Your task to perform on an android device: turn off data saver in the chrome app Image 0: 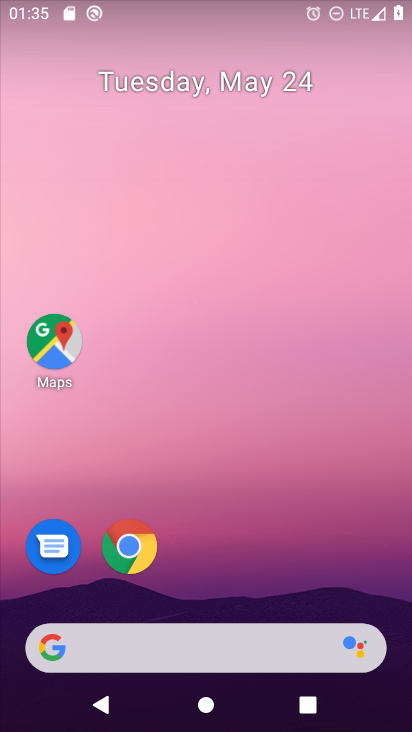
Step 0: drag from (308, 577) to (307, 66)
Your task to perform on an android device: turn off data saver in the chrome app Image 1: 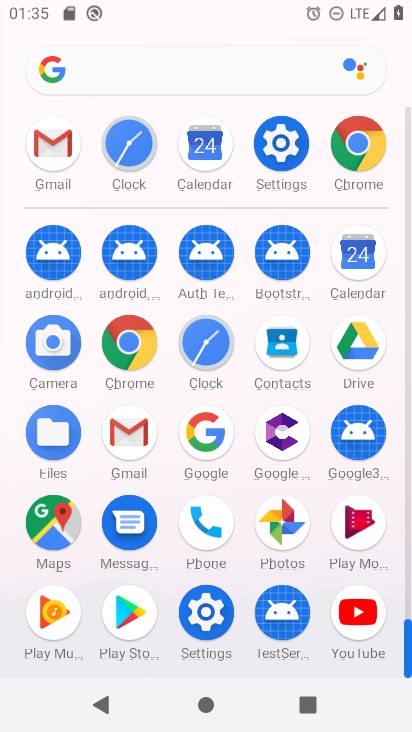
Step 1: click (128, 369)
Your task to perform on an android device: turn off data saver in the chrome app Image 2: 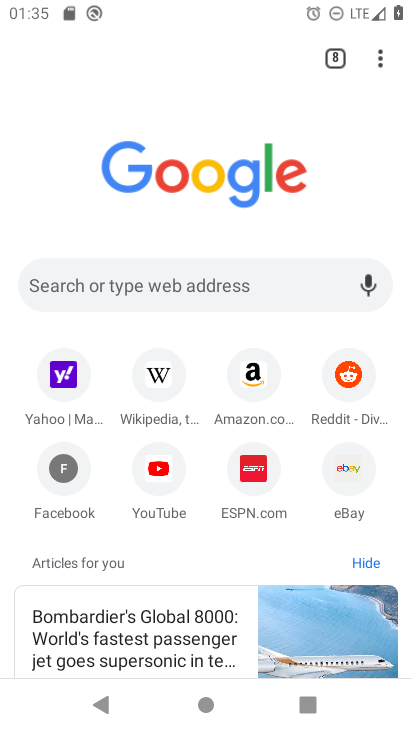
Step 2: drag from (382, 58) to (187, 490)
Your task to perform on an android device: turn off data saver in the chrome app Image 3: 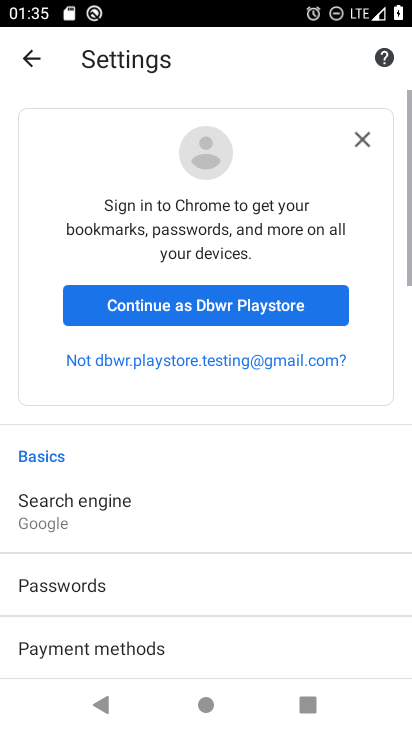
Step 3: drag from (214, 617) to (279, 12)
Your task to perform on an android device: turn off data saver in the chrome app Image 4: 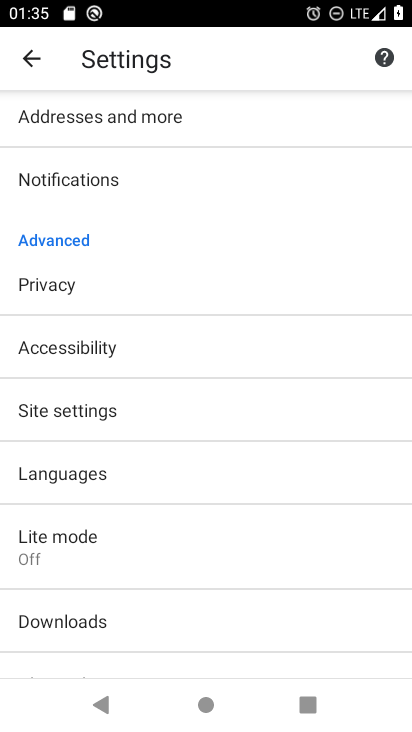
Step 4: click (92, 536)
Your task to perform on an android device: turn off data saver in the chrome app Image 5: 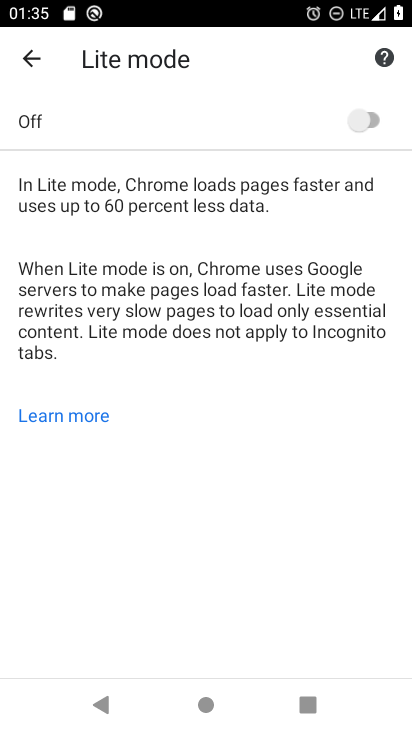
Step 5: task complete